Your task to perform on an android device: What's on my calendar today? Image 0: 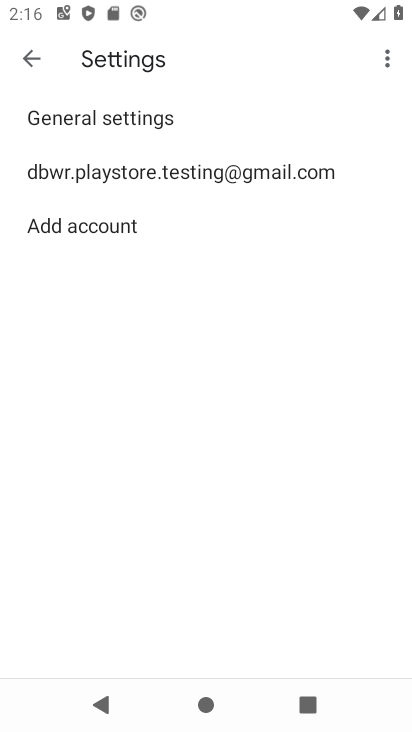
Step 0: press home button
Your task to perform on an android device: What's on my calendar today? Image 1: 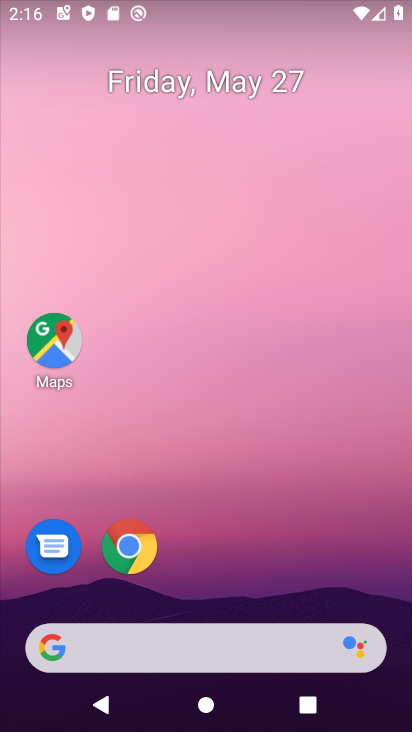
Step 1: drag from (147, 486) to (143, 435)
Your task to perform on an android device: What's on my calendar today? Image 2: 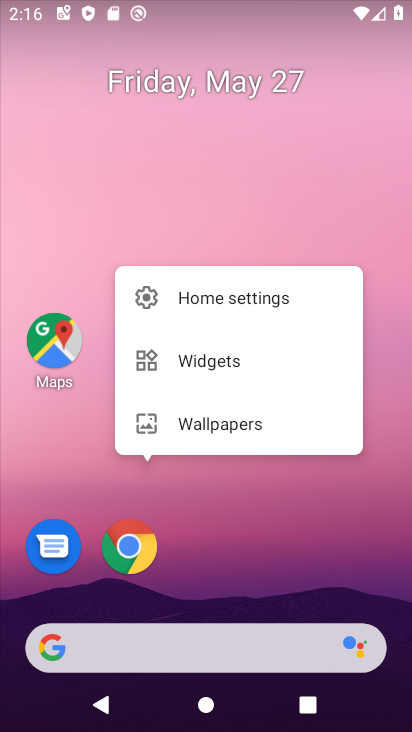
Step 2: click (143, 435)
Your task to perform on an android device: What's on my calendar today? Image 3: 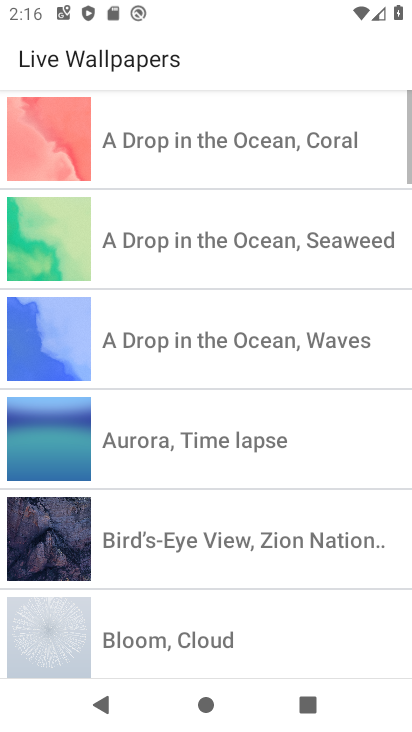
Step 3: press home button
Your task to perform on an android device: What's on my calendar today? Image 4: 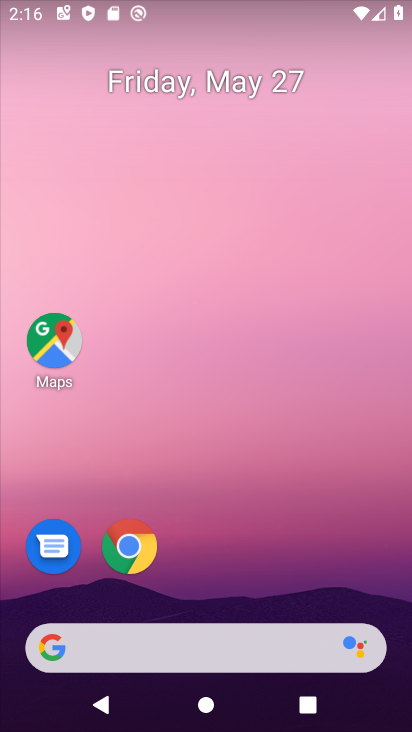
Step 4: drag from (333, 564) to (321, 115)
Your task to perform on an android device: What's on my calendar today? Image 5: 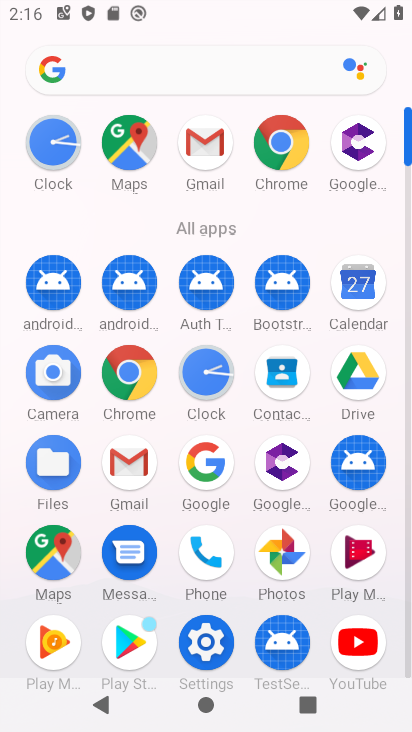
Step 5: click (354, 278)
Your task to perform on an android device: What's on my calendar today? Image 6: 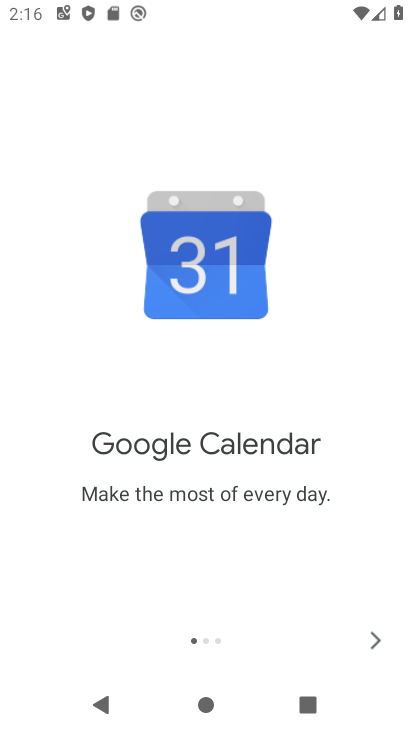
Step 6: click (357, 284)
Your task to perform on an android device: What's on my calendar today? Image 7: 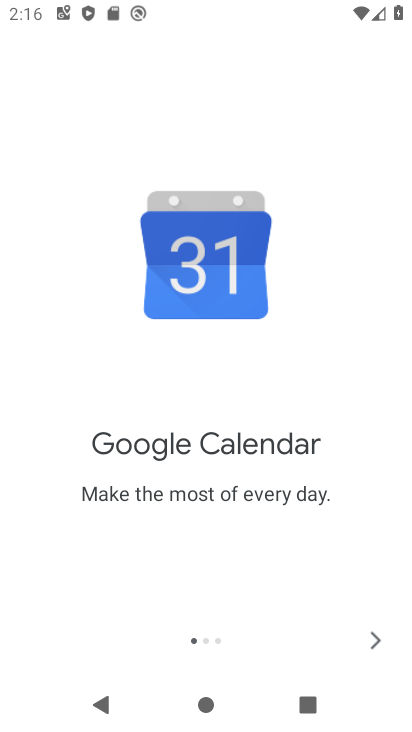
Step 7: click (359, 565)
Your task to perform on an android device: What's on my calendar today? Image 8: 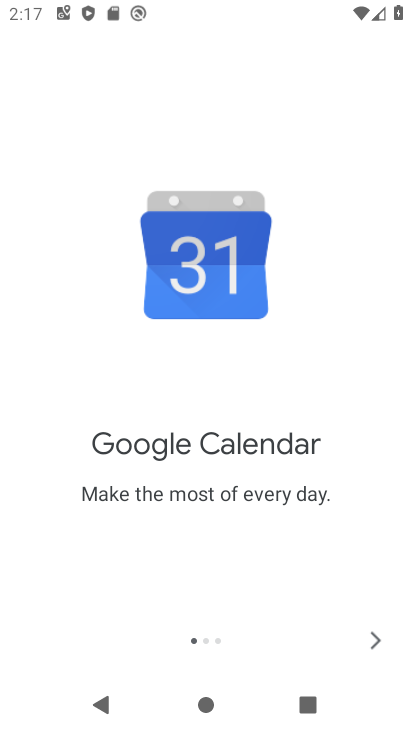
Step 8: click (367, 607)
Your task to perform on an android device: What's on my calendar today? Image 9: 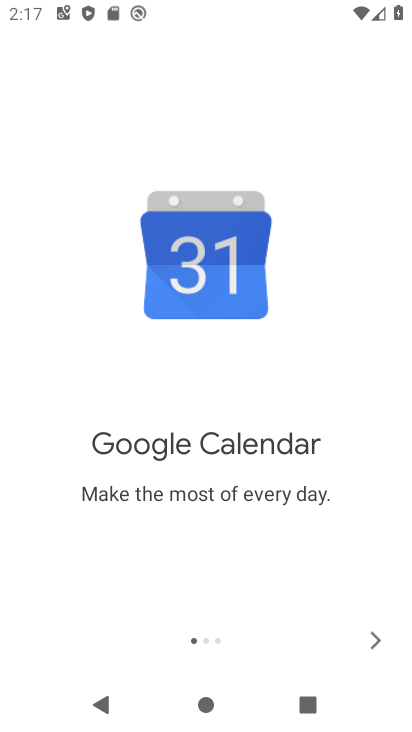
Step 9: click (374, 618)
Your task to perform on an android device: What's on my calendar today? Image 10: 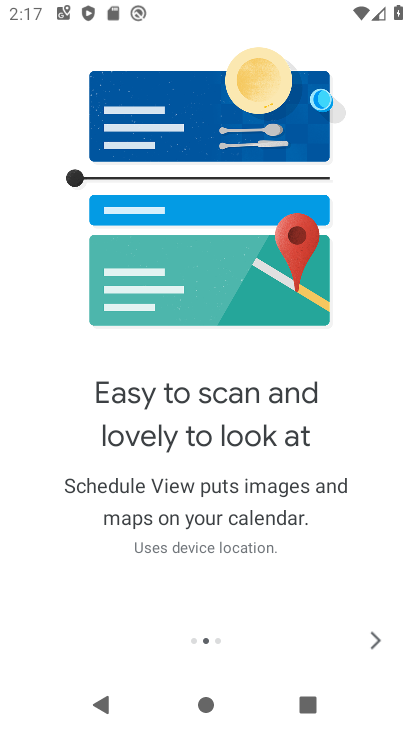
Step 10: click (371, 613)
Your task to perform on an android device: What's on my calendar today? Image 11: 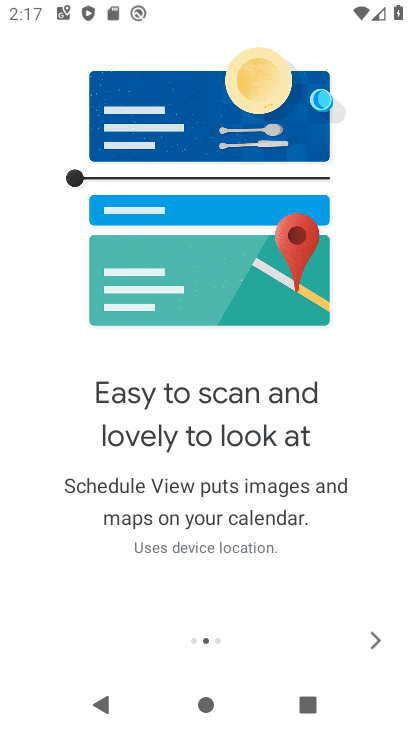
Step 11: click (373, 626)
Your task to perform on an android device: What's on my calendar today? Image 12: 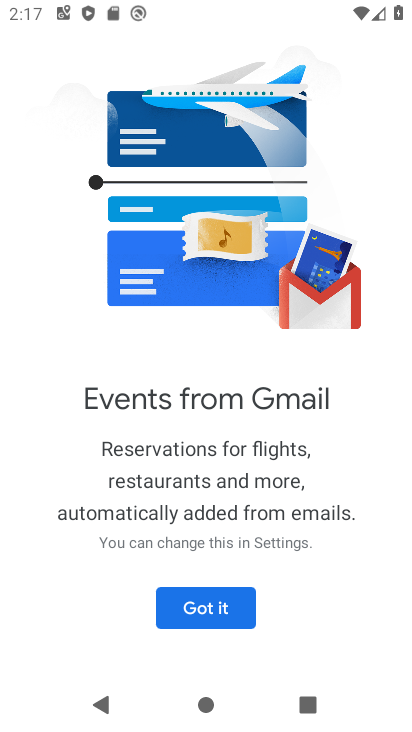
Step 12: click (238, 609)
Your task to perform on an android device: What's on my calendar today? Image 13: 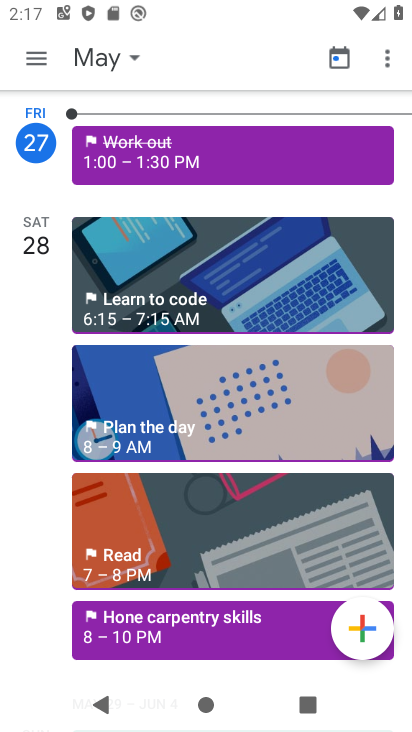
Step 13: click (232, 483)
Your task to perform on an android device: What's on my calendar today? Image 14: 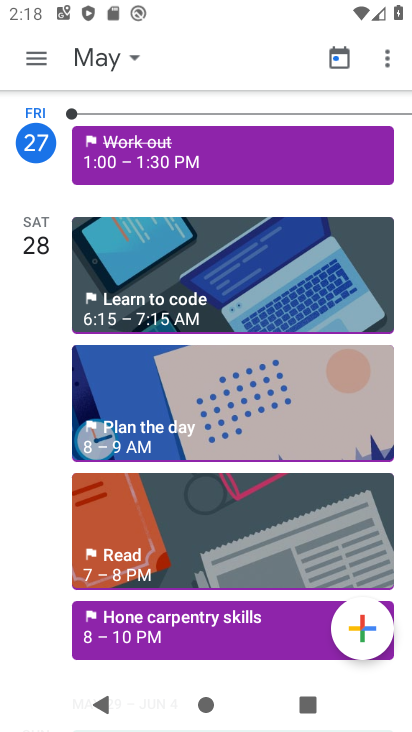
Step 14: click (51, 107)
Your task to perform on an android device: What's on my calendar today? Image 15: 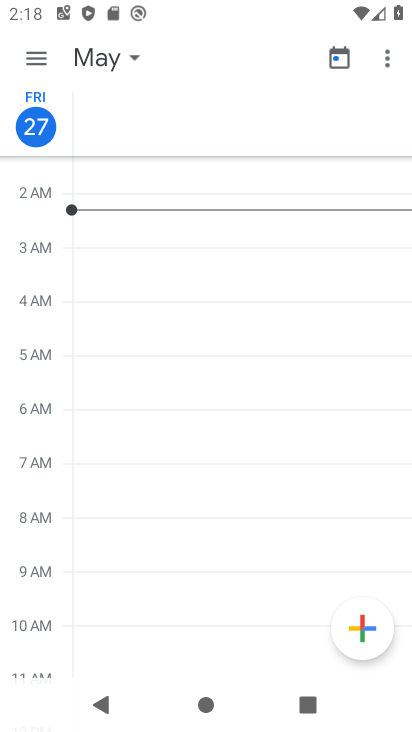
Step 15: task complete